Your task to perform on an android device: open chrome and create a bookmark for the current page Image 0: 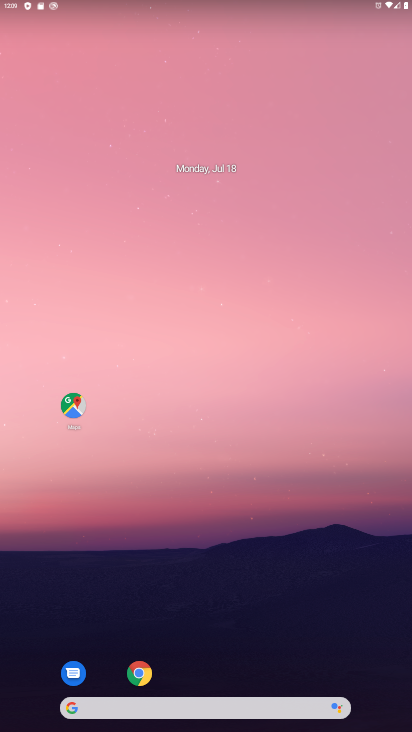
Step 0: click (207, 206)
Your task to perform on an android device: open chrome and create a bookmark for the current page Image 1: 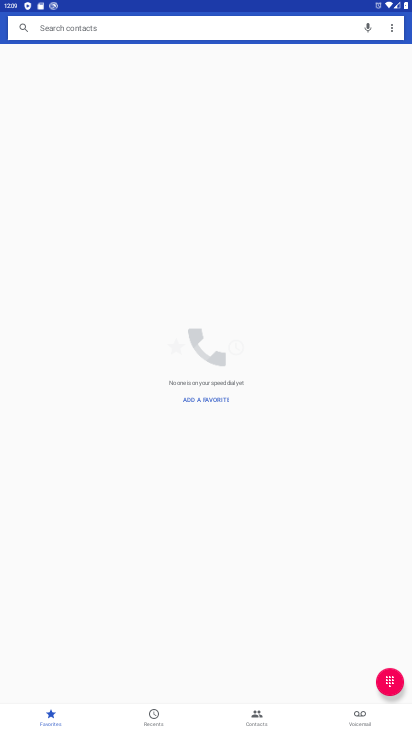
Step 1: press home button
Your task to perform on an android device: open chrome and create a bookmark for the current page Image 2: 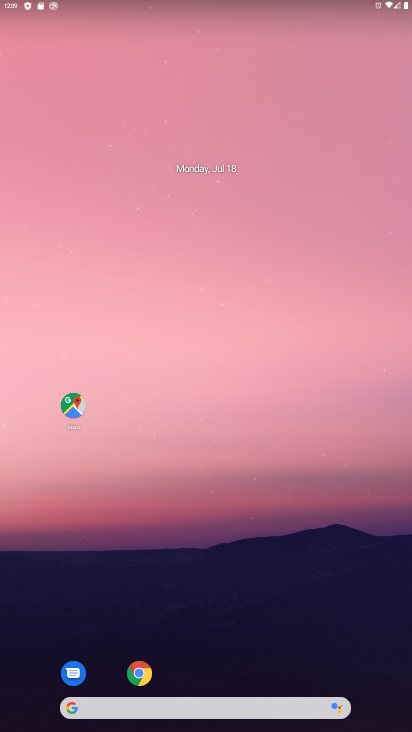
Step 2: click (250, 617)
Your task to perform on an android device: open chrome and create a bookmark for the current page Image 3: 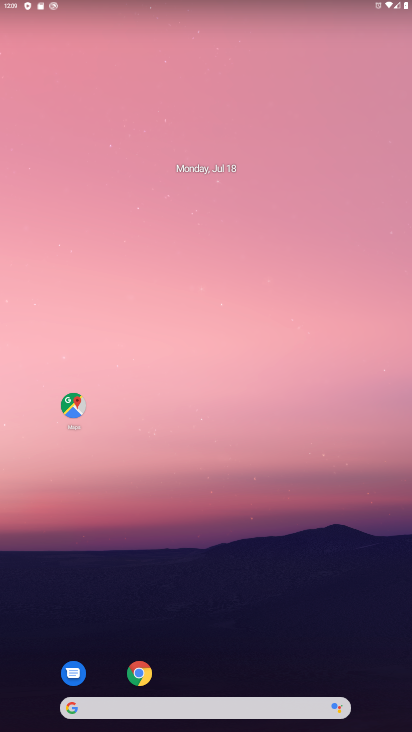
Step 3: click (153, 676)
Your task to perform on an android device: open chrome and create a bookmark for the current page Image 4: 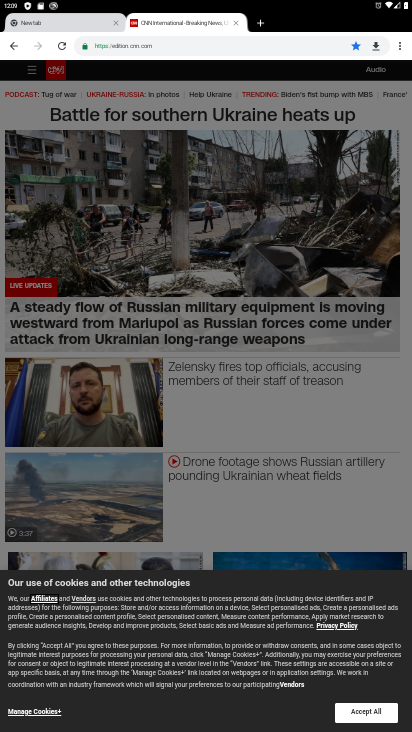
Step 4: click (407, 45)
Your task to perform on an android device: open chrome and create a bookmark for the current page Image 5: 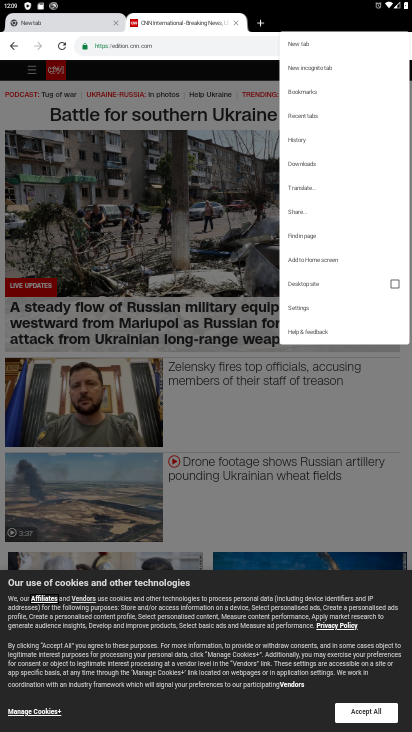
Step 5: click (302, 309)
Your task to perform on an android device: open chrome and create a bookmark for the current page Image 6: 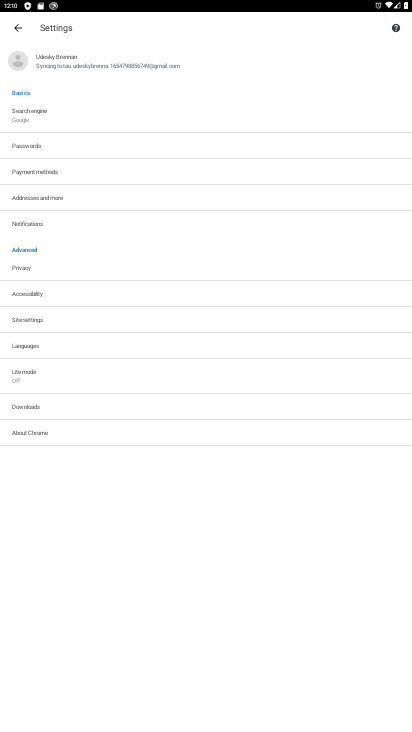
Step 6: task complete